Your task to perform on an android device: Go to sound settings Image 0: 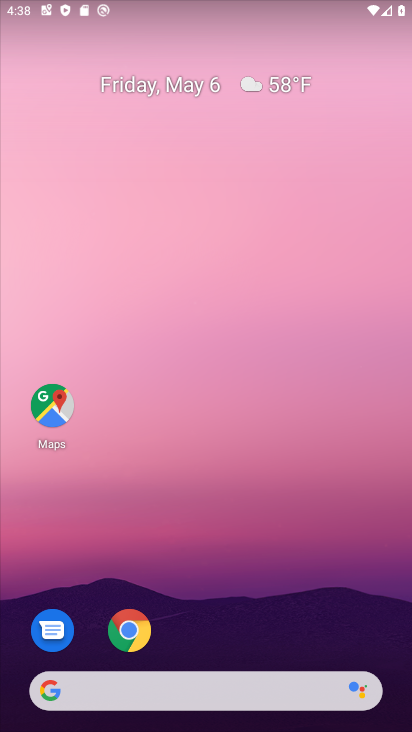
Step 0: drag from (263, 610) to (297, 18)
Your task to perform on an android device: Go to sound settings Image 1: 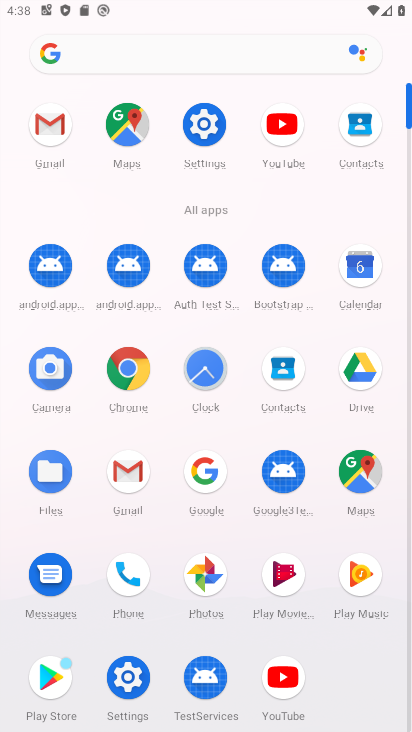
Step 1: click (120, 674)
Your task to perform on an android device: Go to sound settings Image 2: 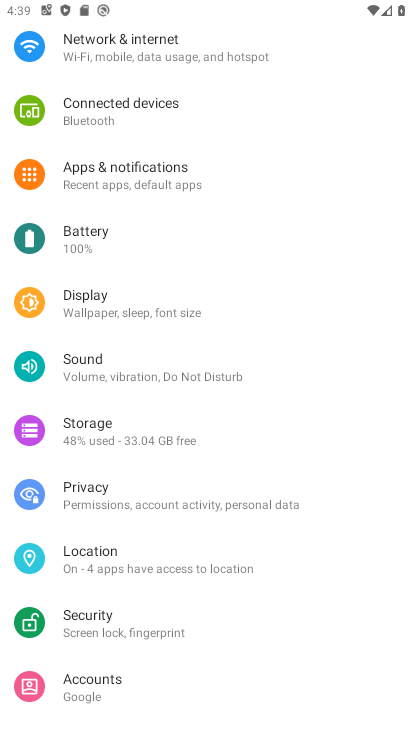
Step 2: click (127, 359)
Your task to perform on an android device: Go to sound settings Image 3: 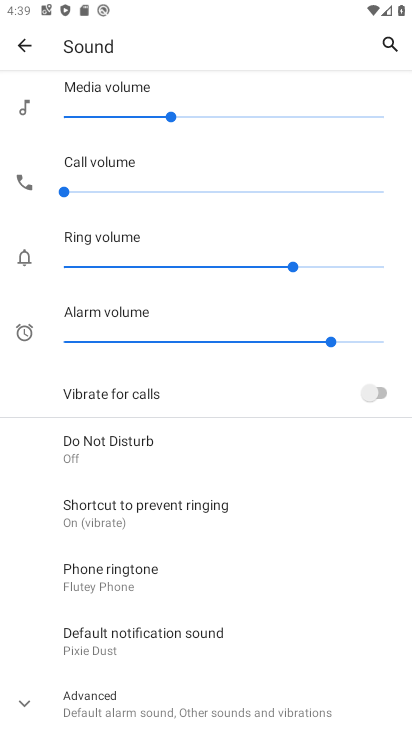
Step 3: task complete